Your task to perform on an android device: turn on priority inbox in the gmail app Image 0: 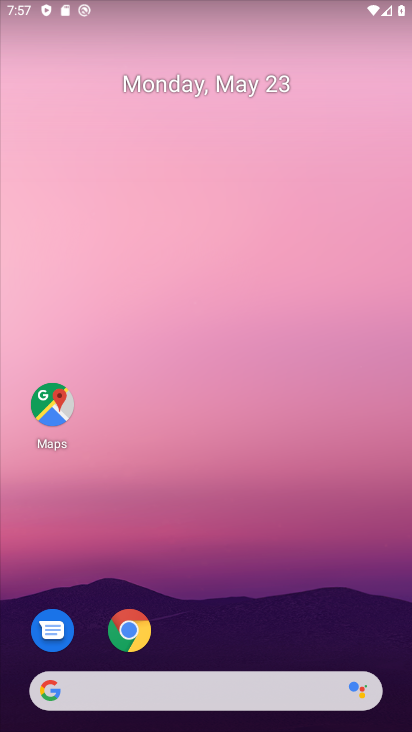
Step 0: drag from (210, 648) to (193, 369)
Your task to perform on an android device: turn on priority inbox in the gmail app Image 1: 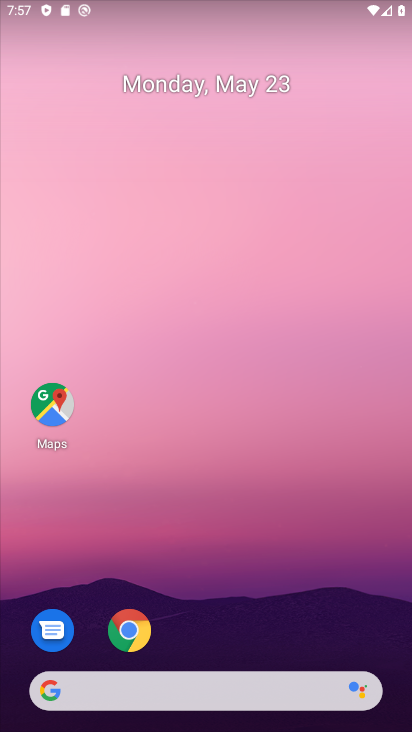
Step 1: drag from (199, 634) to (212, 32)
Your task to perform on an android device: turn on priority inbox in the gmail app Image 2: 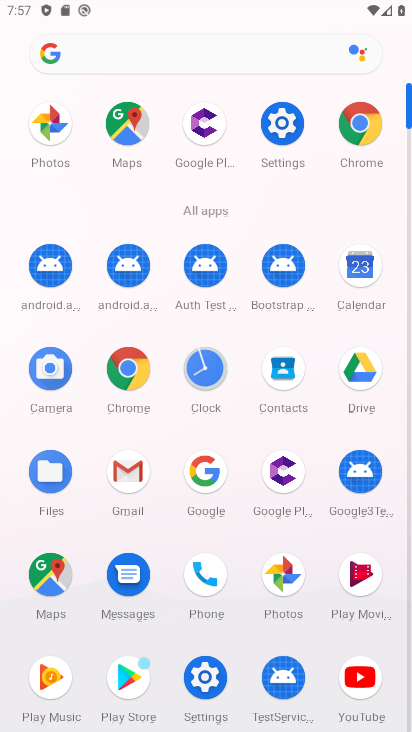
Step 2: click (133, 486)
Your task to perform on an android device: turn on priority inbox in the gmail app Image 3: 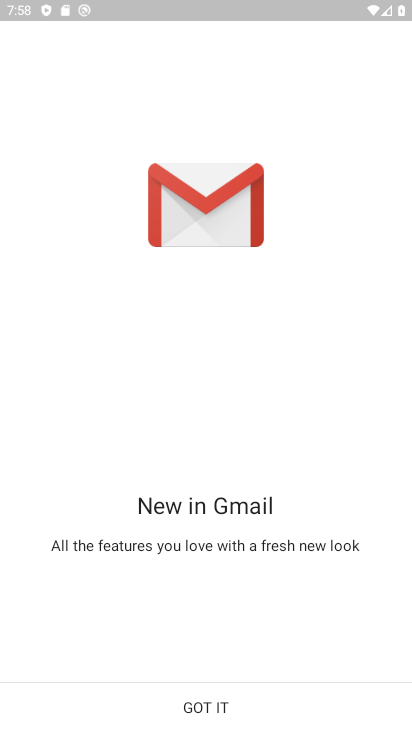
Step 3: click (202, 704)
Your task to perform on an android device: turn on priority inbox in the gmail app Image 4: 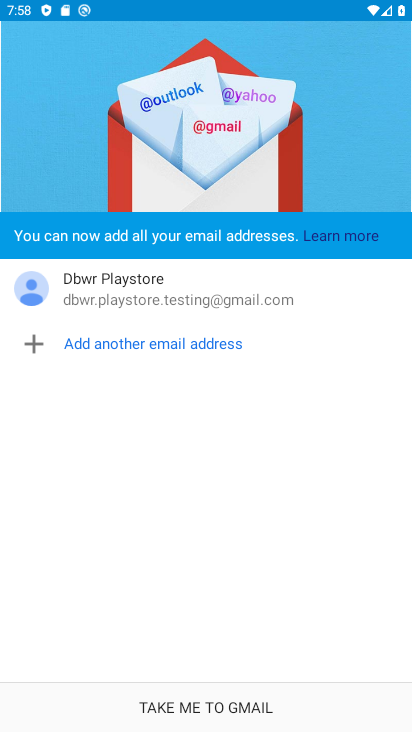
Step 4: click (204, 704)
Your task to perform on an android device: turn on priority inbox in the gmail app Image 5: 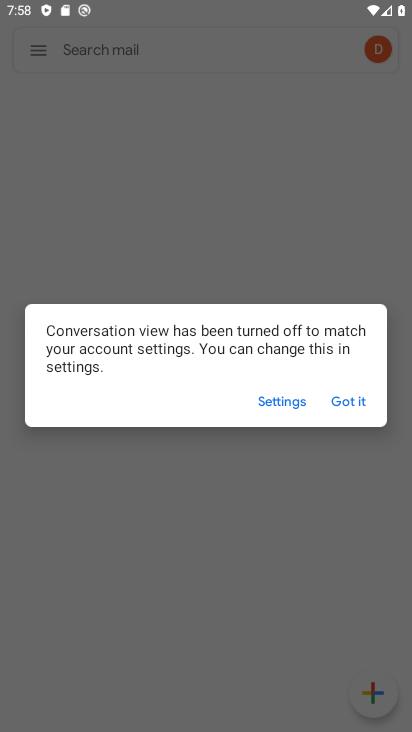
Step 5: click (361, 406)
Your task to perform on an android device: turn on priority inbox in the gmail app Image 6: 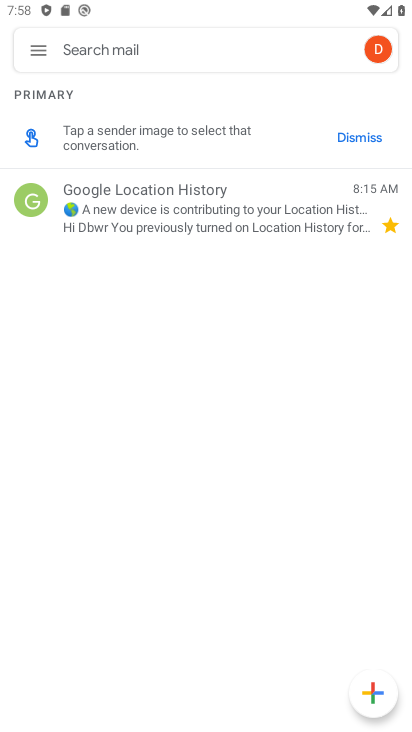
Step 6: click (35, 47)
Your task to perform on an android device: turn on priority inbox in the gmail app Image 7: 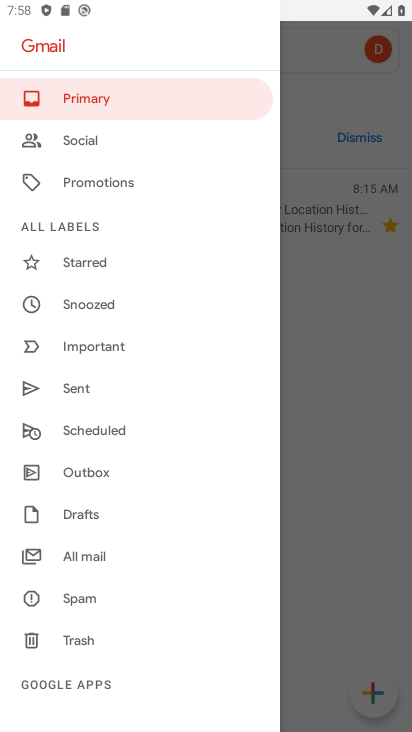
Step 7: drag from (102, 624) to (99, 286)
Your task to perform on an android device: turn on priority inbox in the gmail app Image 8: 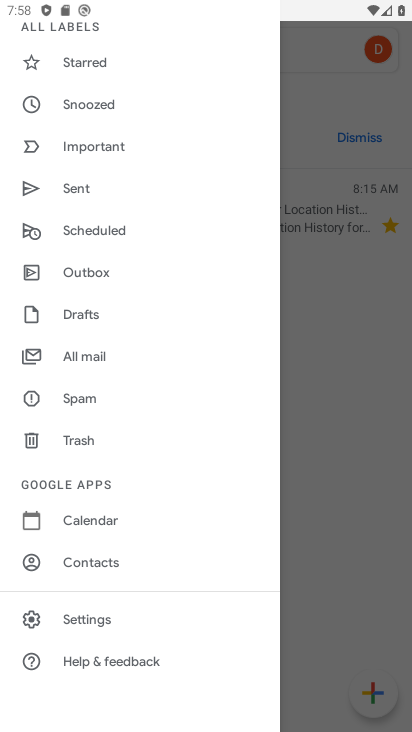
Step 8: click (90, 629)
Your task to perform on an android device: turn on priority inbox in the gmail app Image 9: 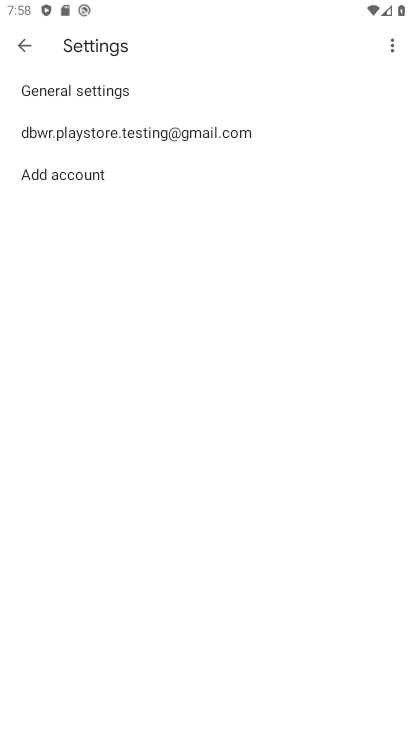
Step 9: click (115, 143)
Your task to perform on an android device: turn on priority inbox in the gmail app Image 10: 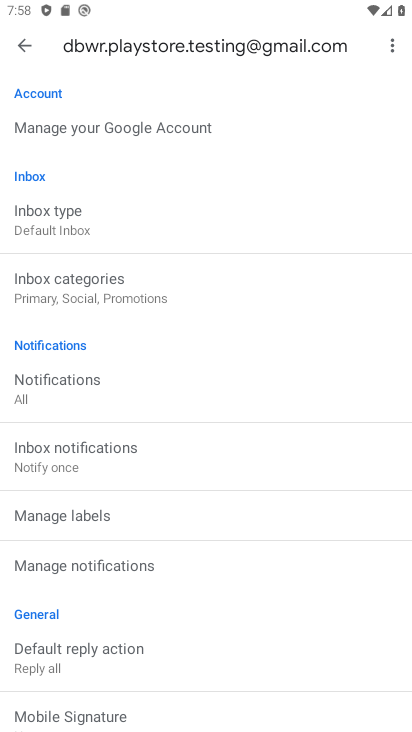
Step 10: click (55, 227)
Your task to perform on an android device: turn on priority inbox in the gmail app Image 11: 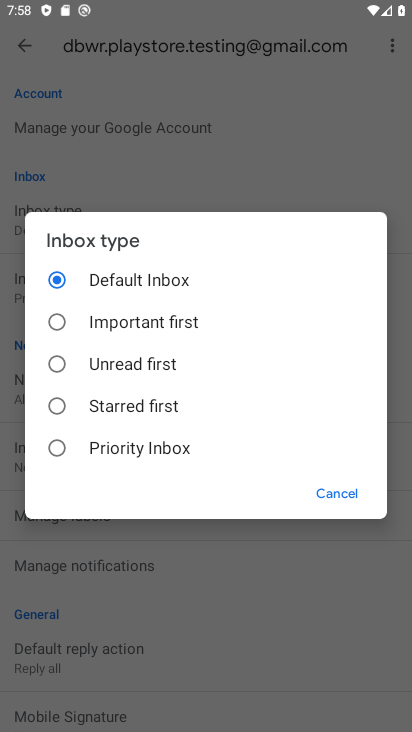
Step 11: click (59, 456)
Your task to perform on an android device: turn on priority inbox in the gmail app Image 12: 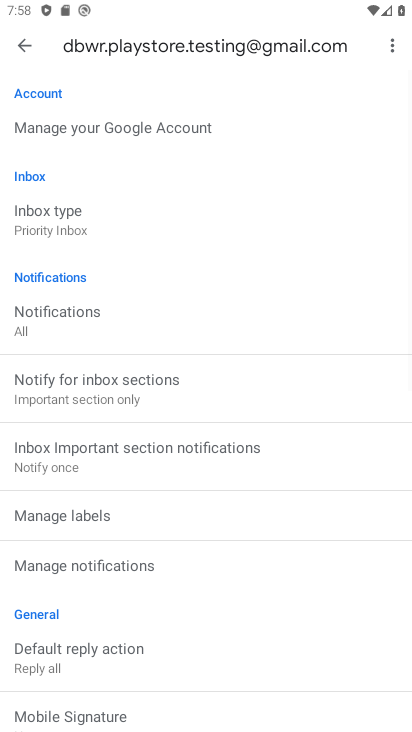
Step 12: task complete